Your task to perform on an android device: turn off airplane mode Image 0: 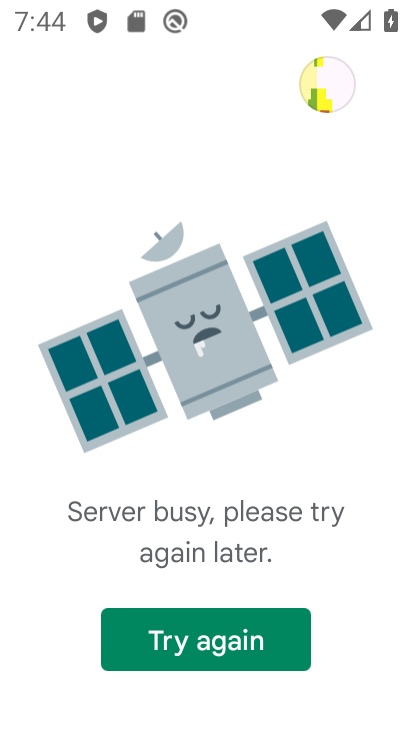
Step 0: press home button
Your task to perform on an android device: turn off airplane mode Image 1: 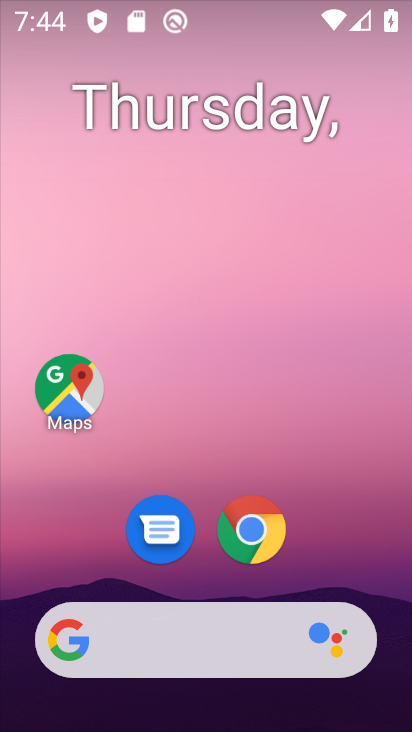
Step 1: drag from (215, 599) to (274, 104)
Your task to perform on an android device: turn off airplane mode Image 2: 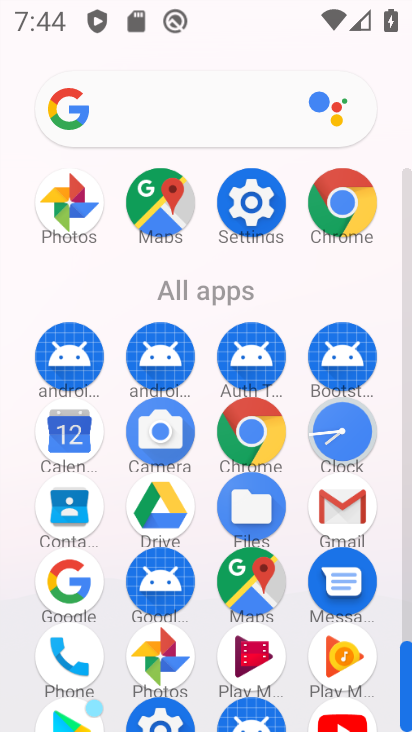
Step 2: click (267, 219)
Your task to perform on an android device: turn off airplane mode Image 3: 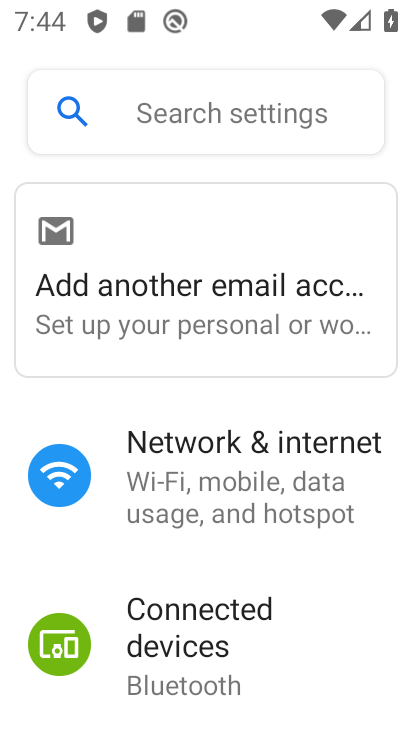
Step 3: click (227, 507)
Your task to perform on an android device: turn off airplane mode Image 4: 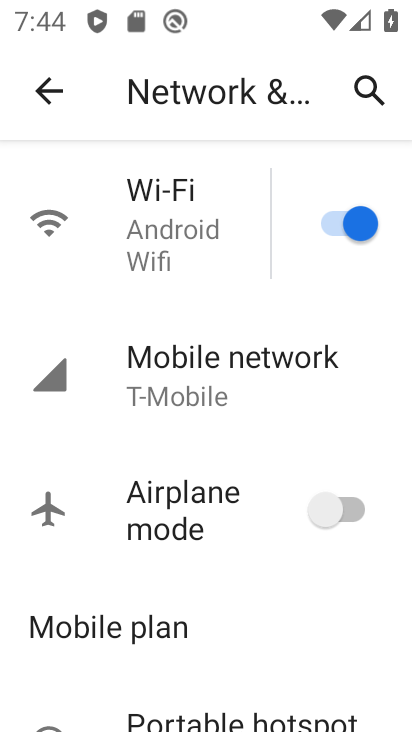
Step 4: task complete